Your task to perform on an android device: allow notifications from all sites in the chrome app Image 0: 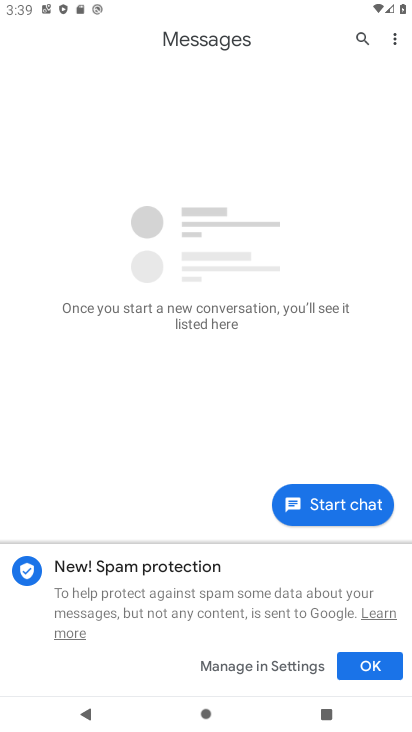
Step 0: press home button
Your task to perform on an android device: allow notifications from all sites in the chrome app Image 1: 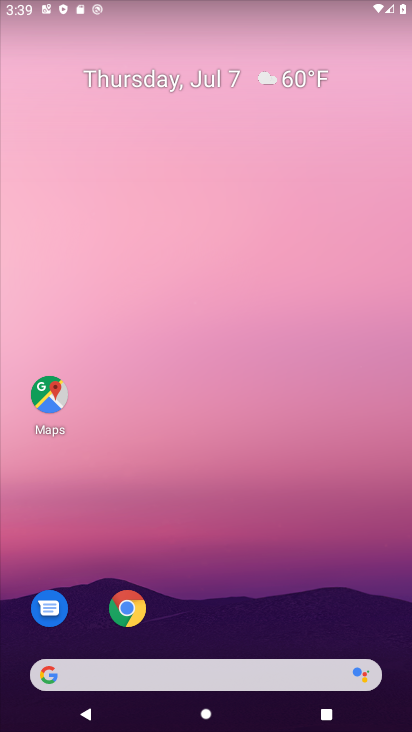
Step 1: click (122, 617)
Your task to perform on an android device: allow notifications from all sites in the chrome app Image 2: 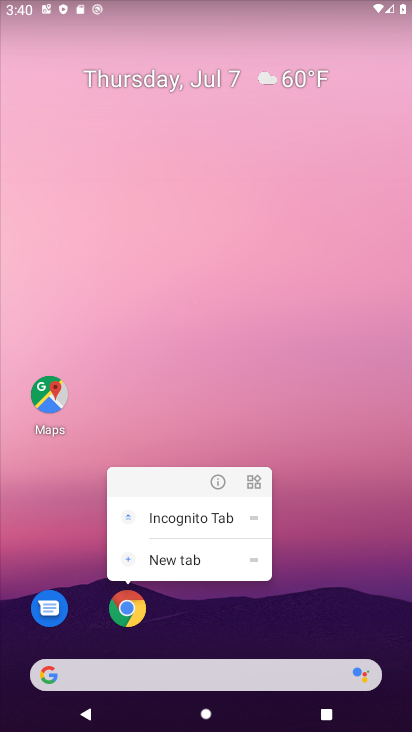
Step 2: click (112, 610)
Your task to perform on an android device: allow notifications from all sites in the chrome app Image 3: 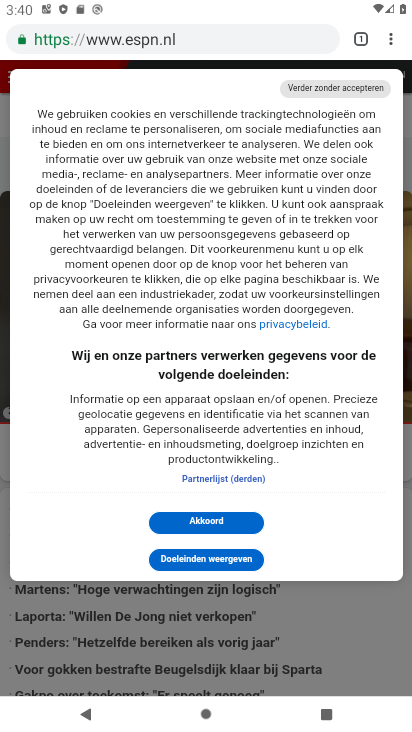
Step 3: drag from (395, 43) to (292, 472)
Your task to perform on an android device: allow notifications from all sites in the chrome app Image 4: 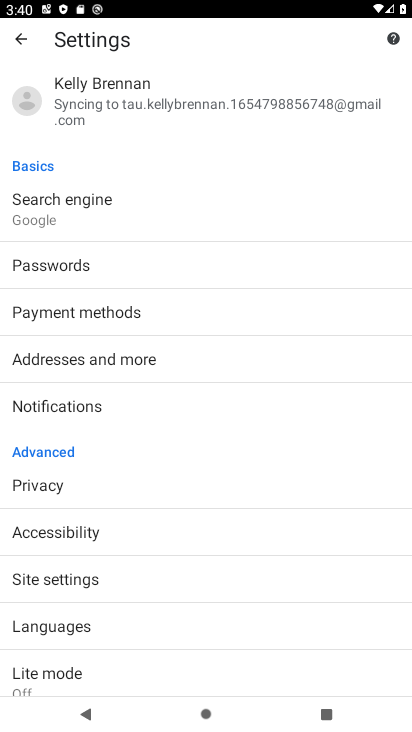
Step 4: click (82, 575)
Your task to perform on an android device: allow notifications from all sites in the chrome app Image 5: 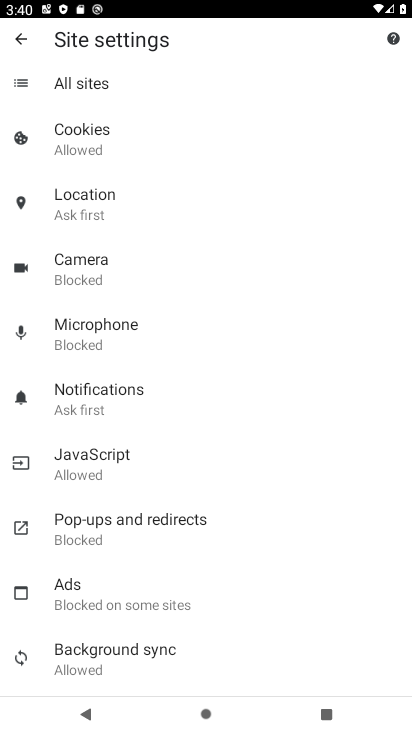
Step 5: click (73, 390)
Your task to perform on an android device: allow notifications from all sites in the chrome app Image 6: 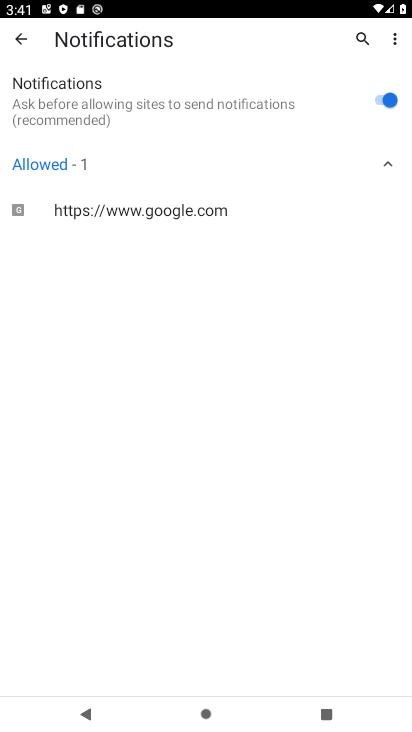
Step 6: task complete